Your task to perform on an android device: turn pop-ups off in chrome Image 0: 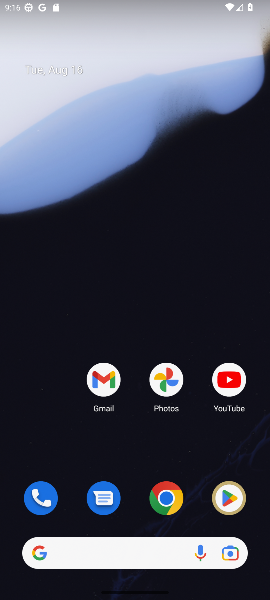
Step 0: press home button
Your task to perform on an android device: turn pop-ups off in chrome Image 1: 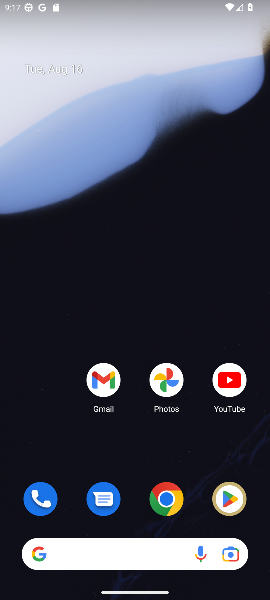
Step 1: drag from (53, 444) to (121, 118)
Your task to perform on an android device: turn pop-ups off in chrome Image 2: 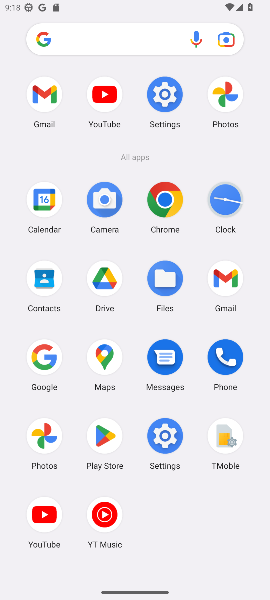
Step 2: click (174, 216)
Your task to perform on an android device: turn pop-ups off in chrome Image 3: 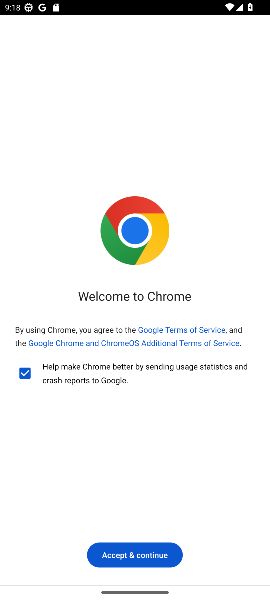
Step 3: click (122, 558)
Your task to perform on an android device: turn pop-ups off in chrome Image 4: 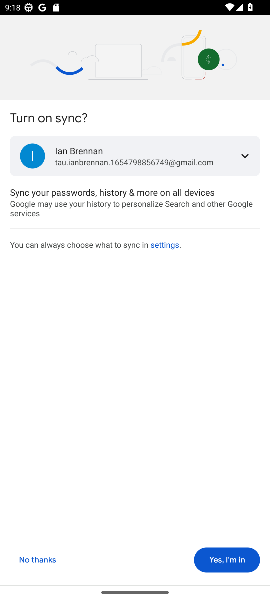
Step 4: click (228, 551)
Your task to perform on an android device: turn pop-ups off in chrome Image 5: 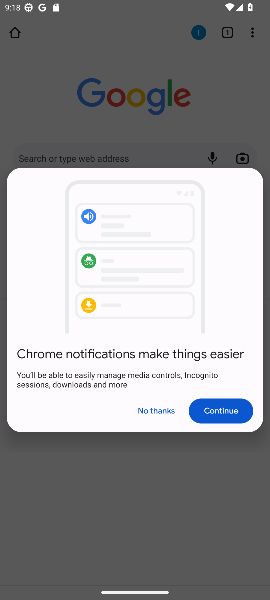
Step 5: click (215, 402)
Your task to perform on an android device: turn pop-ups off in chrome Image 6: 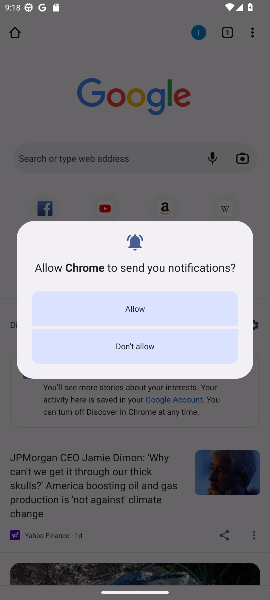
Step 6: click (124, 300)
Your task to perform on an android device: turn pop-ups off in chrome Image 7: 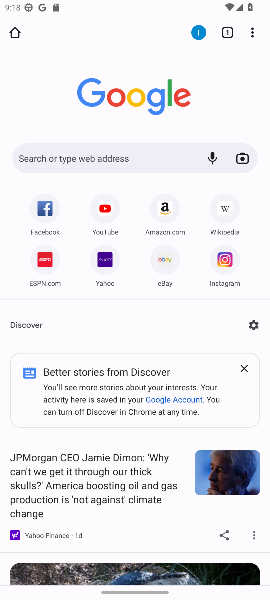
Step 7: click (154, 159)
Your task to perform on an android device: turn pop-ups off in chrome Image 8: 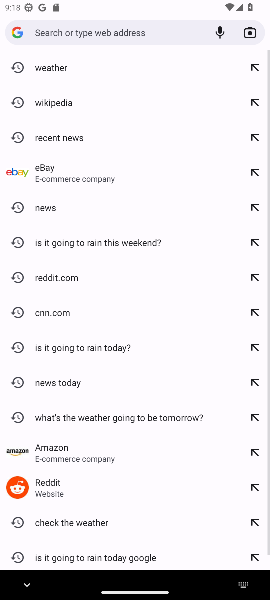
Step 8: press back button
Your task to perform on an android device: turn pop-ups off in chrome Image 9: 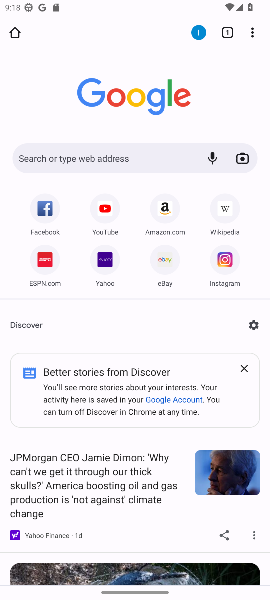
Step 9: drag from (253, 29) to (153, 299)
Your task to perform on an android device: turn pop-ups off in chrome Image 10: 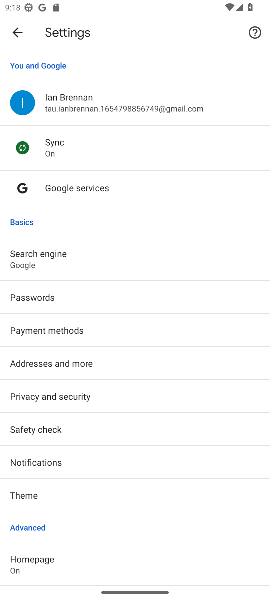
Step 10: drag from (97, 495) to (120, 384)
Your task to perform on an android device: turn pop-ups off in chrome Image 11: 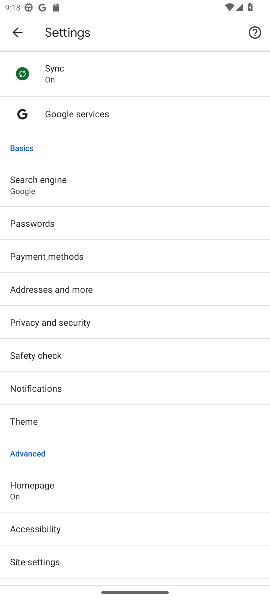
Step 11: click (38, 559)
Your task to perform on an android device: turn pop-ups off in chrome Image 12: 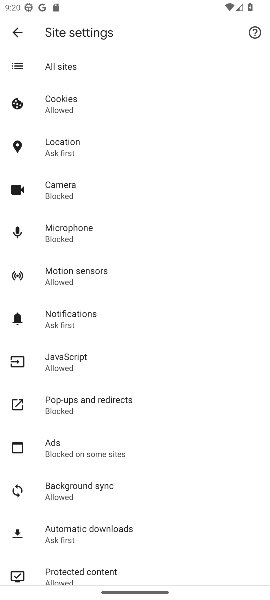
Step 12: click (100, 406)
Your task to perform on an android device: turn pop-ups off in chrome Image 13: 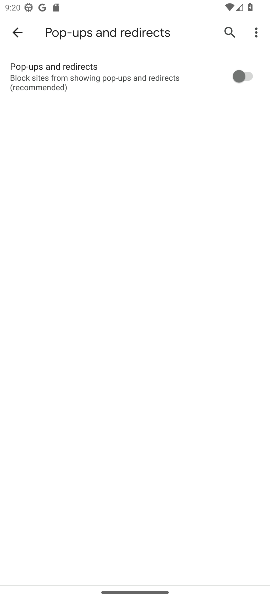
Step 13: task complete